Your task to perform on an android device: star an email in the gmail app Image 0: 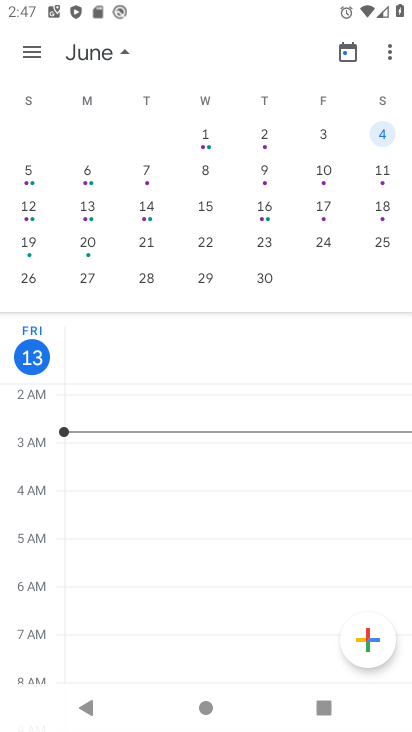
Step 0: press home button
Your task to perform on an android device: star an email in the gmail app Image 1: 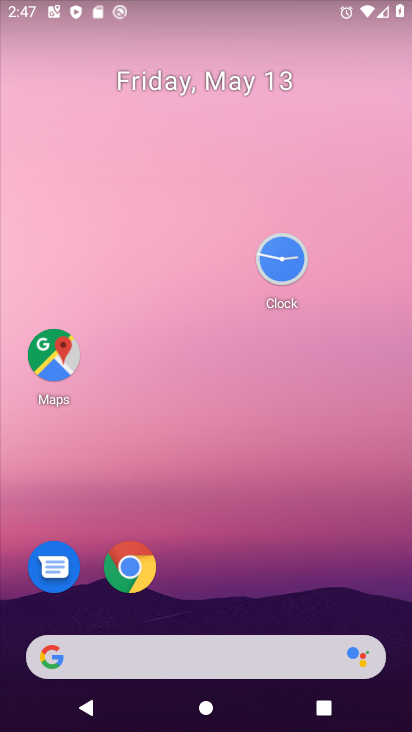
Step 1: drag from (257, 534) to (191, 275)
Your task to perform on an android device: star an email in the gmail app Image 2: 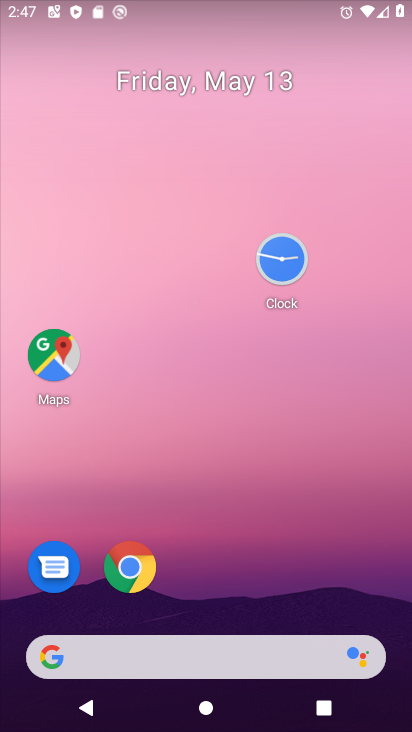
Step 2: drag from (246, 538) to (117, 138)
Your task to perform on an android device: star an email in the gmail app Image 3: 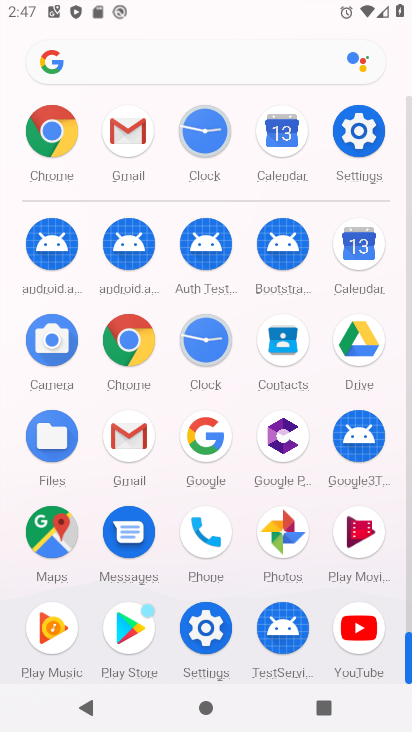
Step 3: click (116, 132)
Your task to perform on an android device: star an email in the gmail app Image 4: 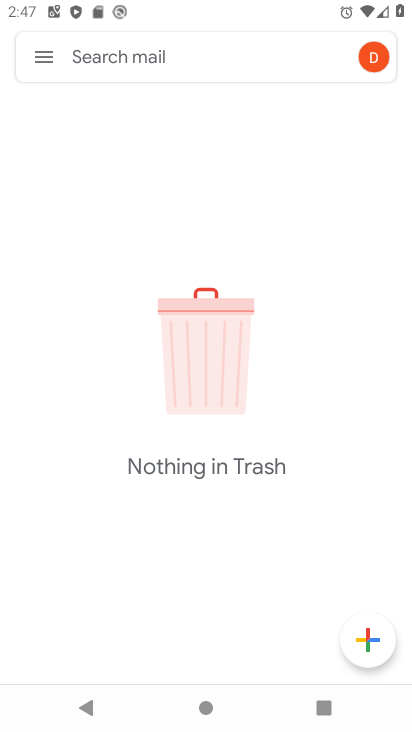
Step 4: click (52, 72)
Your task to perform on an android device: star an email in the gmail app Image 5: 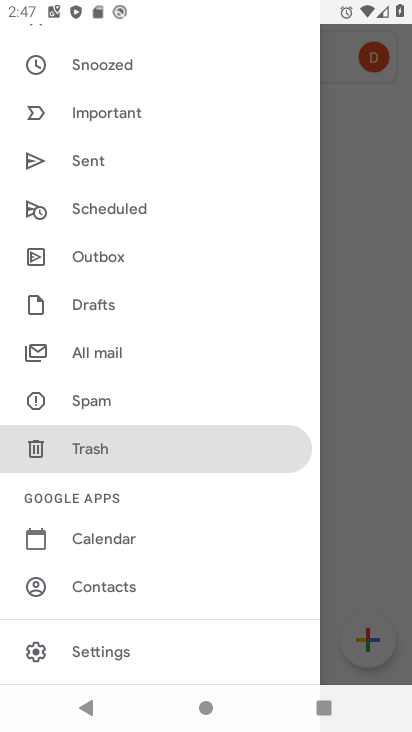
Step 5: drag from (149, 575) to (116, 475)
Your task to perform on an android device: star an email in the gmail app Image 6: 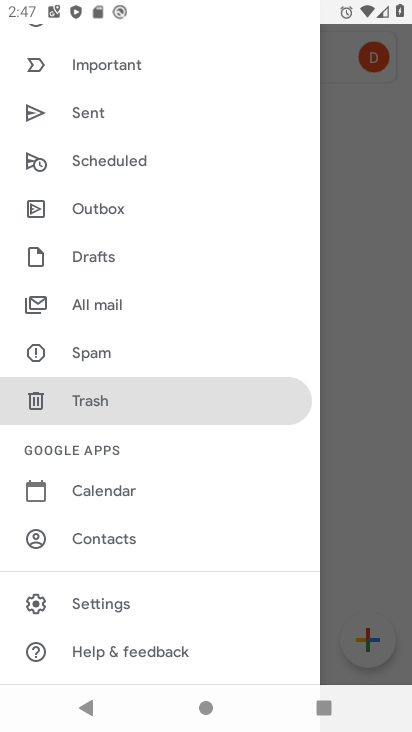
Step 6: click (118, 311)
Your task to perform on an android device: star an email in the gmail app Image 7: 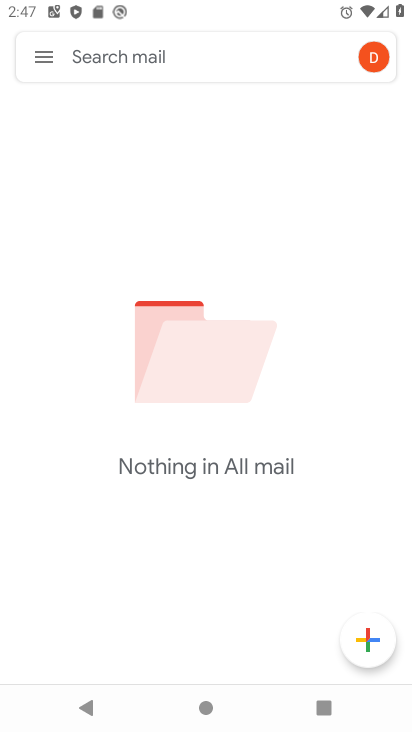
Step 7: task complete